Your task to perform on an android device: Open Reddit.com Image 0: 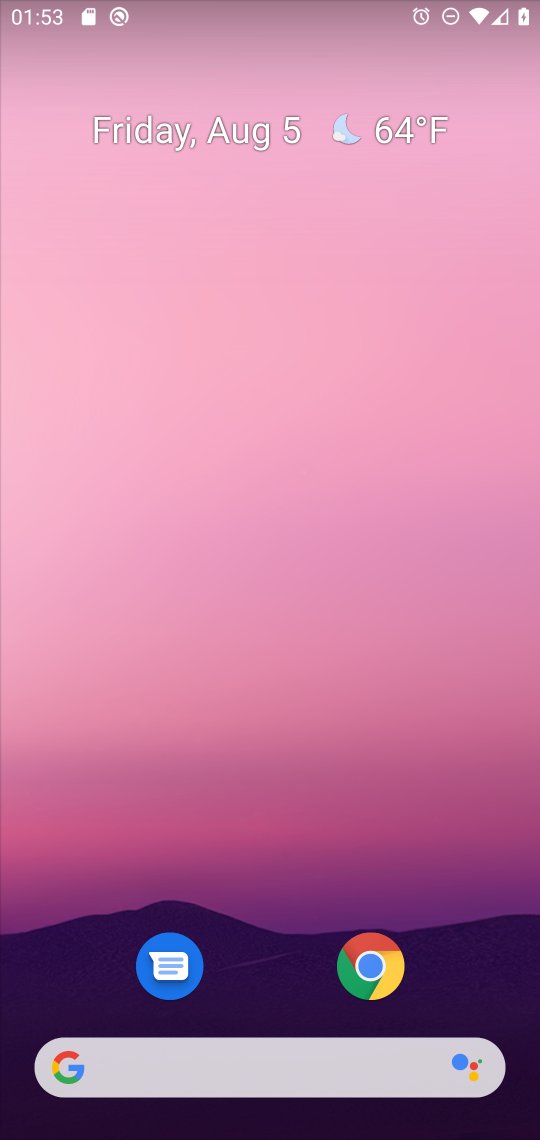
Step 0: click (297, 1066)
Your task to perform on an android device: Open Reddit.com Image 1: 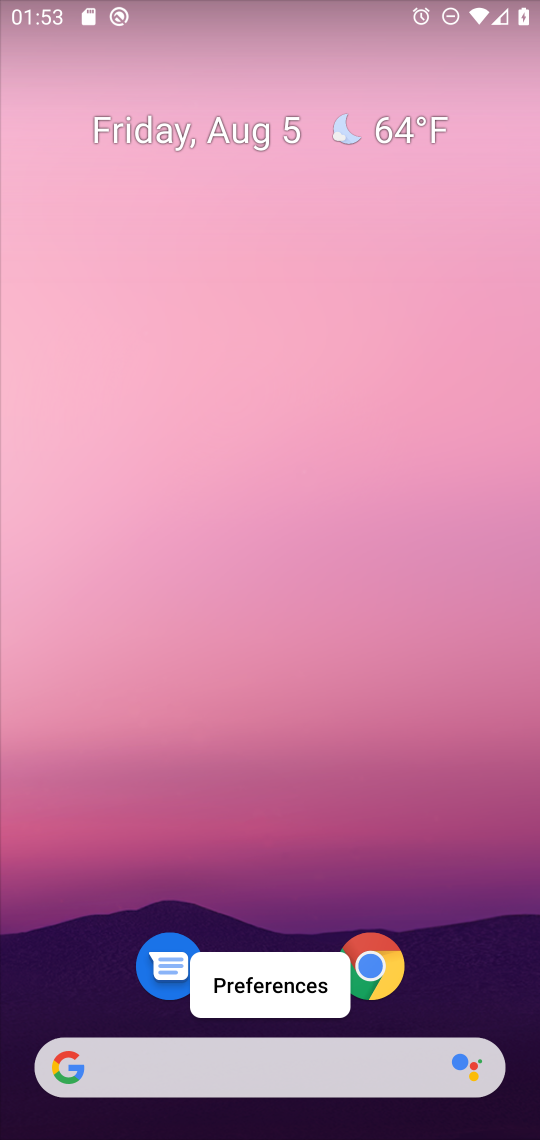
Step 1: click (292, 1073)
Your task to perform on an android device: Open Reddit.com Image 2: 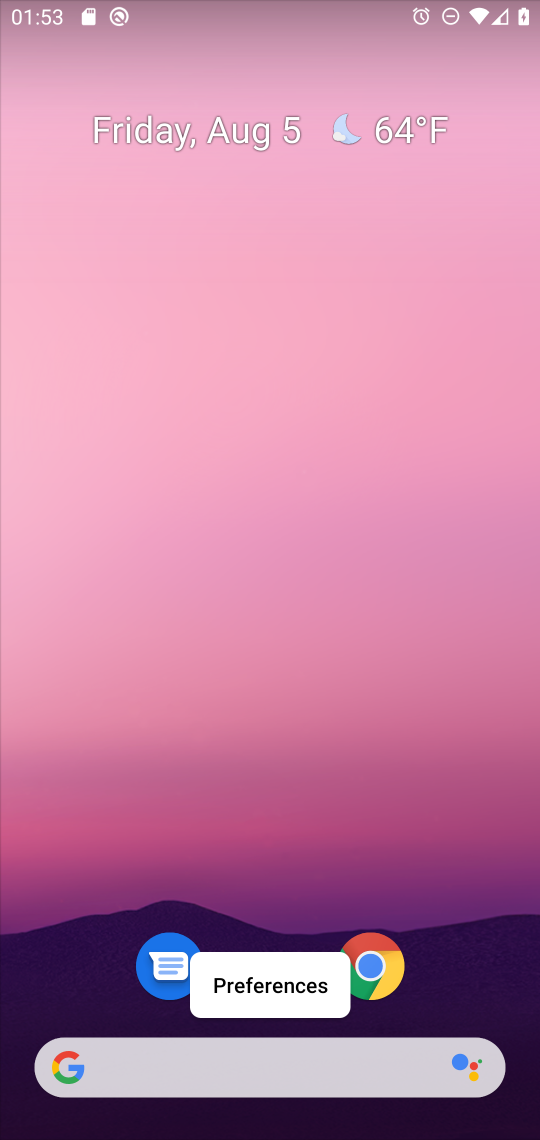
Step 2: click (292, 1073)
Your task to perform on an android device: Open Reddit.com Image 3: 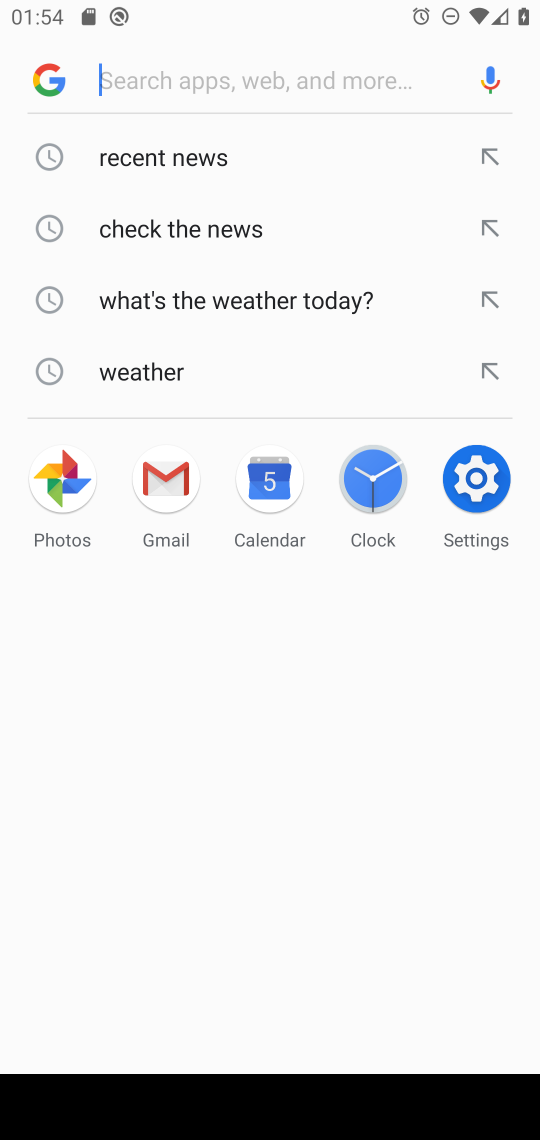
Step 3: type "reddit.com"
Your task to perform on an android device: Open Reddit.com Image 4: 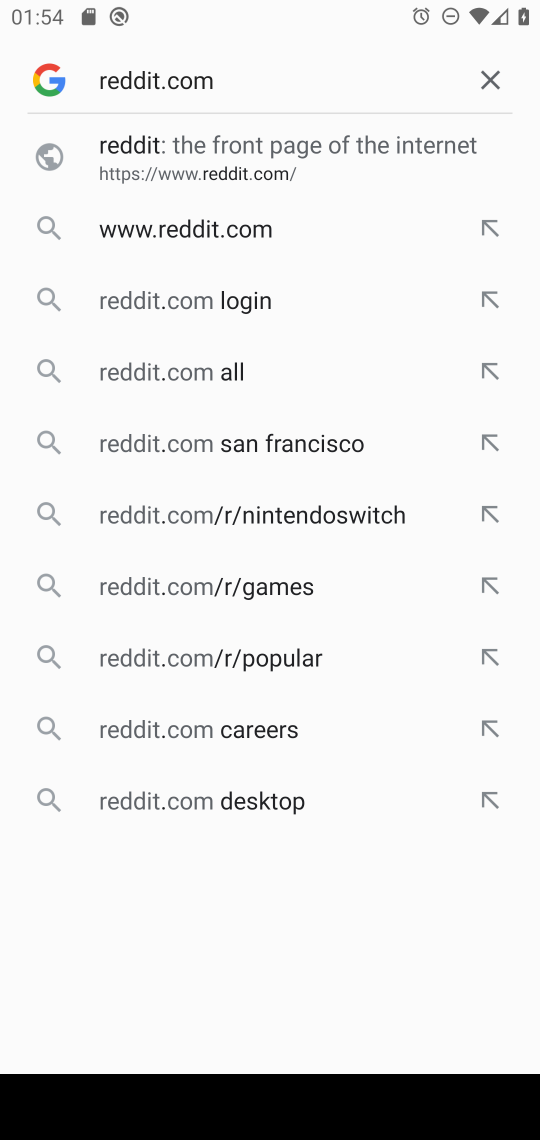
Step 4: click (320, 151)
Your task to perform on an android device: Open Reddit.com Image 5: 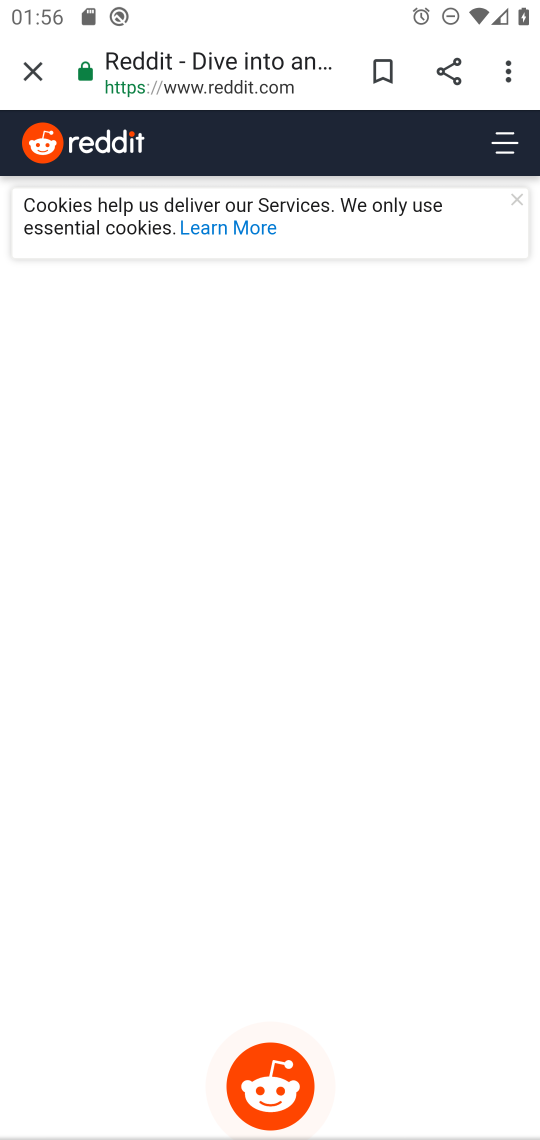
Step 5: task complete